Your task to perform on an android device: turn off airplane mode Image 0: 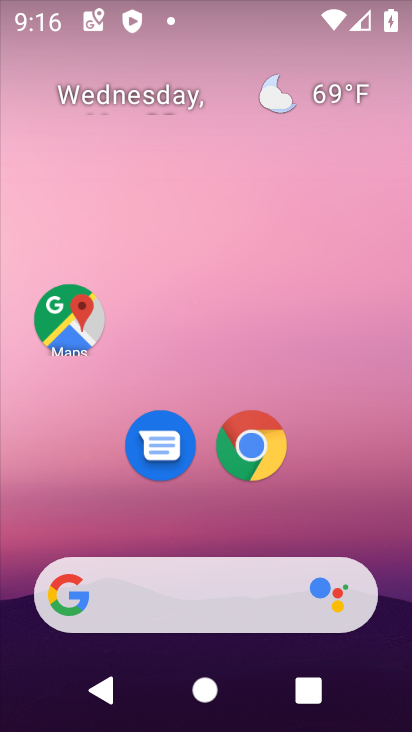
Step 0: drag from (242, 5) to (241, 505)
Your task to perform on an android device: turn off airplane mode Image 1: 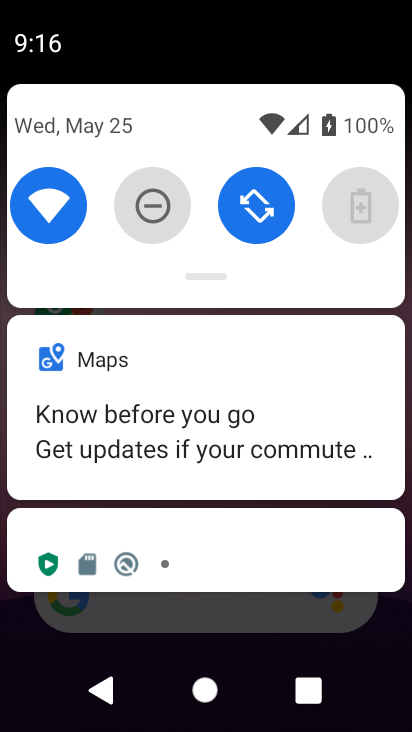
Step 1: task complete